Your task to perform on an android device: Open Amazon Image 0: 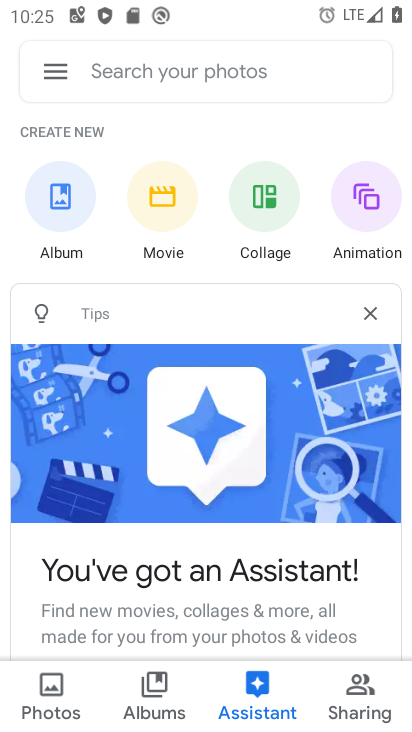
Step 0: press home button
Your task to perform on an android device: Open Amazon Image 1: 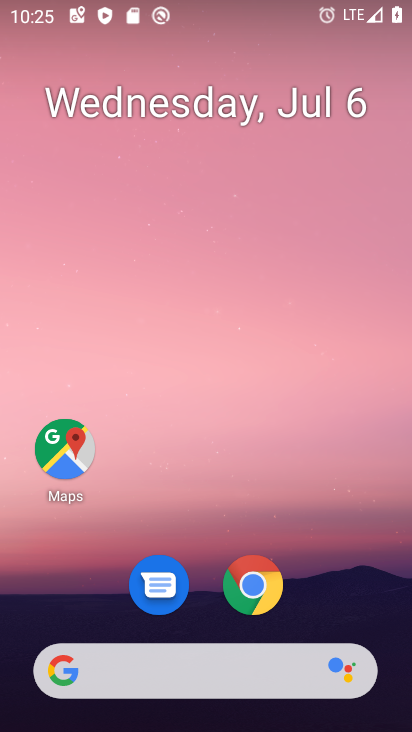
Step 1: drag from (210, 448) to (312, 23)
Your task to perform on an android device: Open Amazon Image 2: 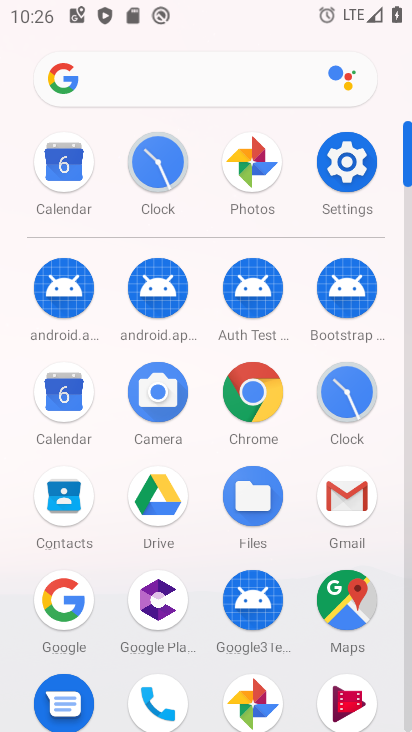
Step 2: click (251, 390)
Your task to perform on an android device: Open Amazon Image 3: 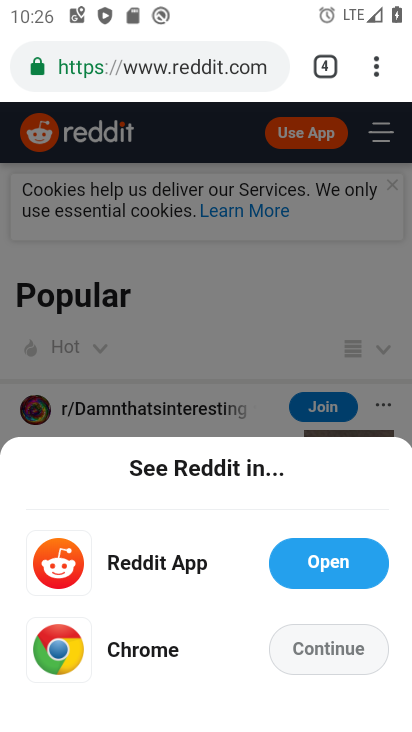
Step 3: click (375, 62)
Your task to perform on an android device: Open Amazon Image 4: 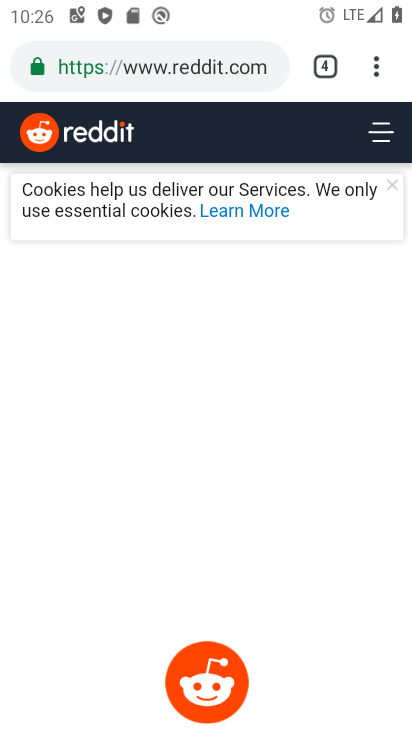
Step 4: click (374, 65)
Your task to perform on an android device: Open Amazon Image 5: 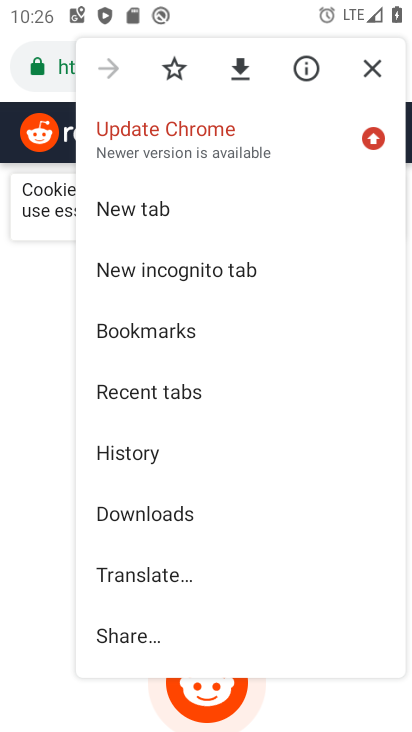
Step 5: click (206, 204)
Your task to perform on an android device: Open Amazon Image 6: 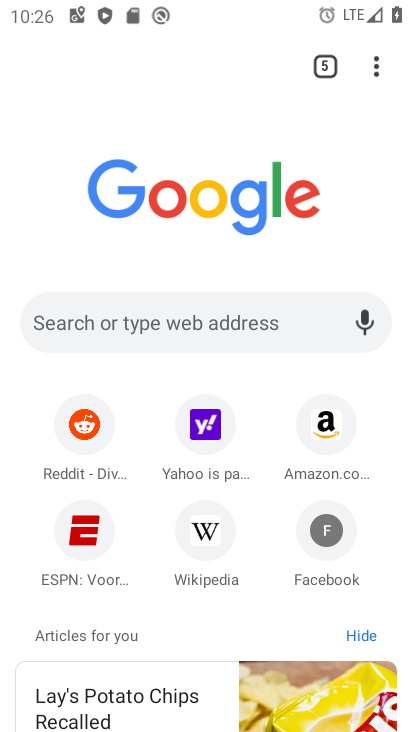
Step 6: click (327, 415)
Your task to perform on an android device: Open Amazon Image 7: 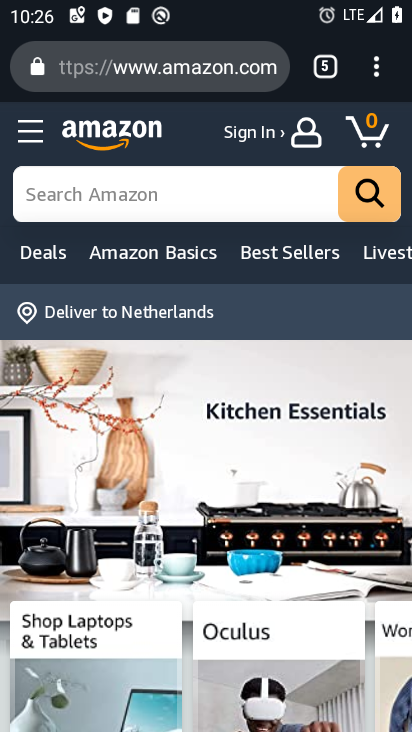
Step 7: task complete